Your task to perform on an android device: Open ESPN.com Image 0: 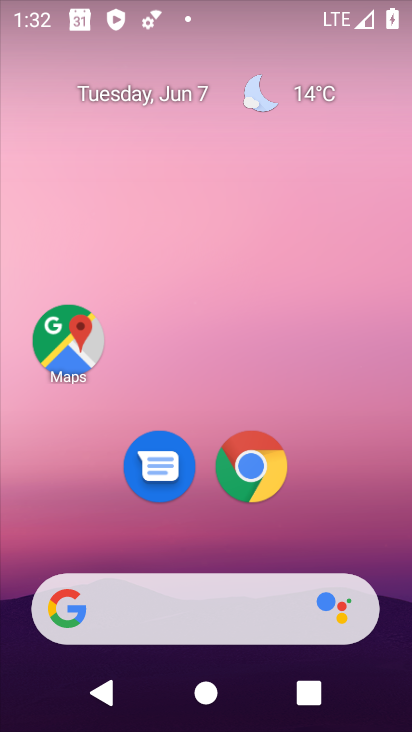
Step 0: click (254, 469)
Your task to perform on an android device: Open ESPN.com Image 1: 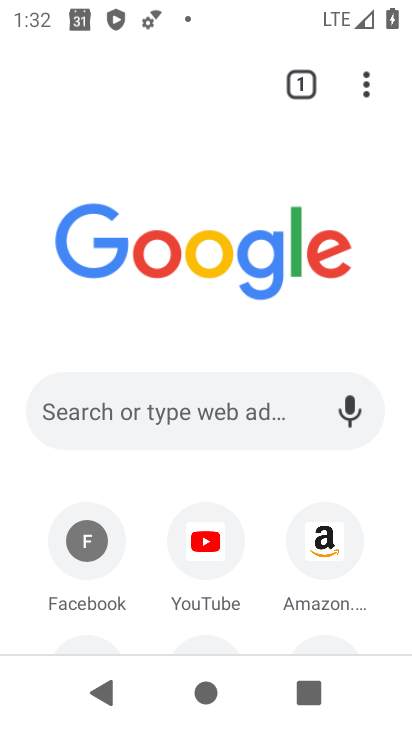
Step 1: drag from (166, 557) to (234, 163)
Your task to perform on an android device: Open ESPN.com Image 2: 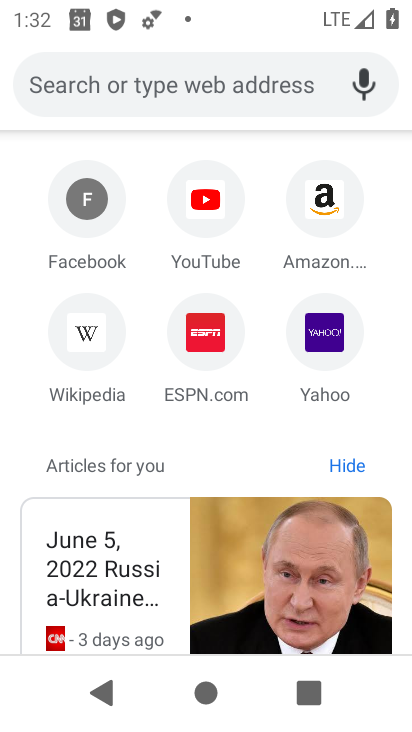
Step 2: click (191, 329)
Your task to perform on an android device: Open ESPN.com Image 3: 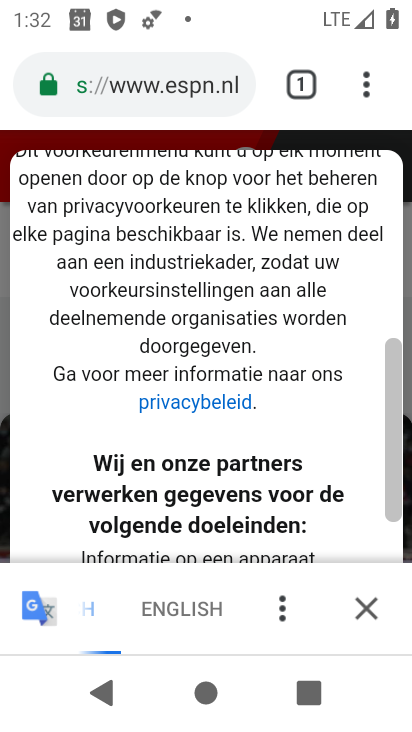
Step 3: task complete